Your task to perform on an android device: choose inbox layout in the gmail app Image 0: 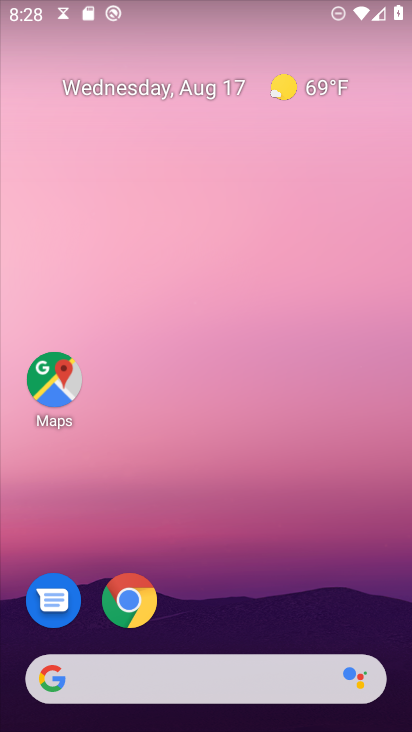
Step 0: drag from (235, 621) to (260, 6)
Your task to perform on an android device: choose inbox layout in the gmail app Image 1: 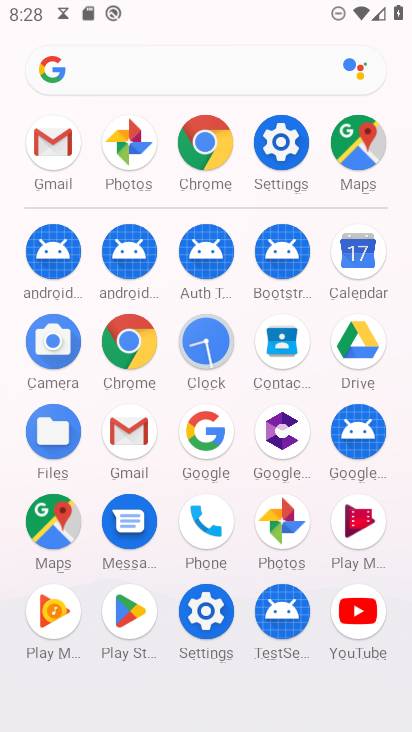
Step 1: click (56, 145)
Your task to perform on an android device: choose inbox layout in the gmail app Image 2: 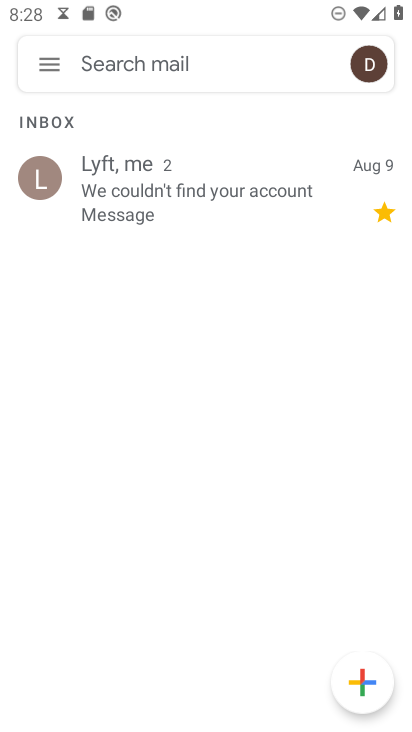
Step 2: click (53, 63)
Your task to perform on an android device: choose inbox layout in the gmail app Image 3: 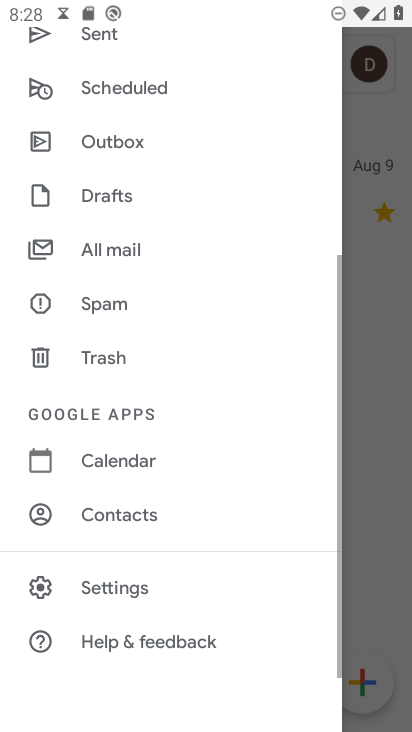
Step 3: click (97, 585)
Your task to perform on an android device: choose inbox layout in the gmail app Image 4: 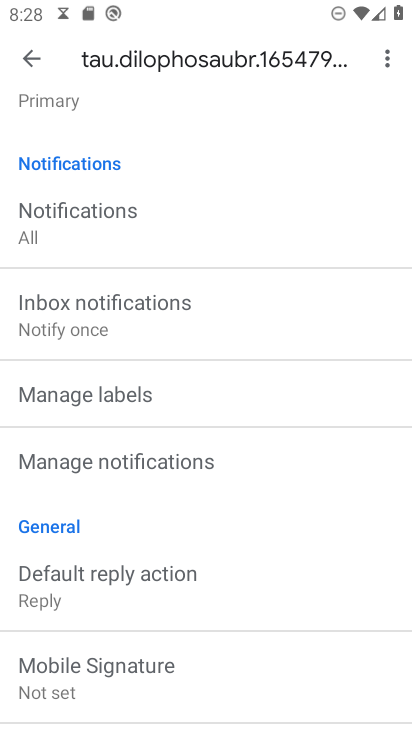
Step 4: drag from (153, 128) to (189, 561)
Your task to perform on an android device: choose inbox layout in the gmail app Image 5: 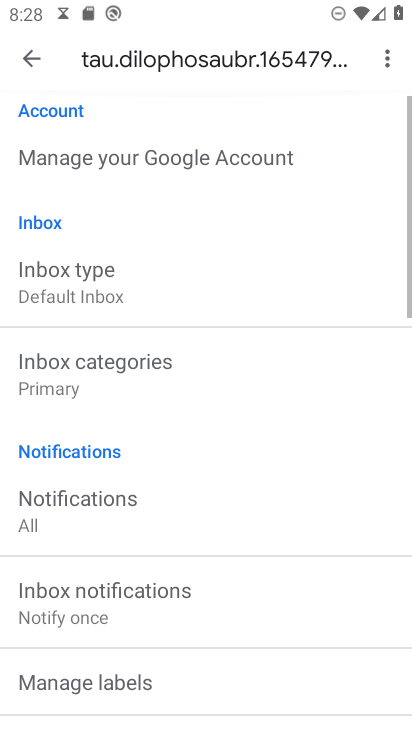
Step 5: click (73, 298)
Your task to perform on an android device: choose inbox layout in the gmail app Image 6: 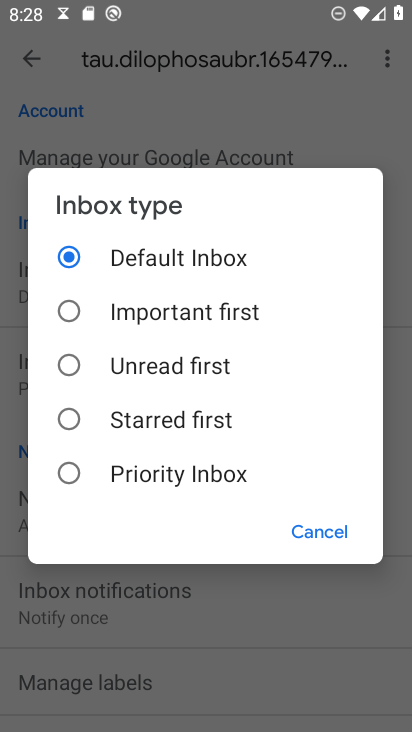
Step 6: task complete